Your task to perform on an android device: check out phone information Image 0: 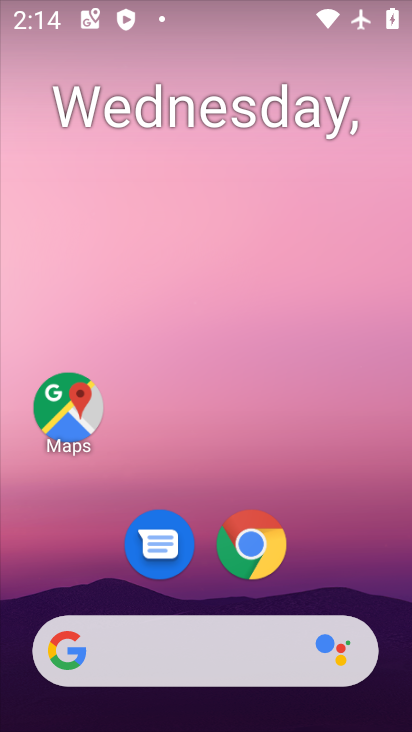
Step 0: drag from (337, 541) to (299, 4)
Your task to perform on an android device: check out phone information Image 1: 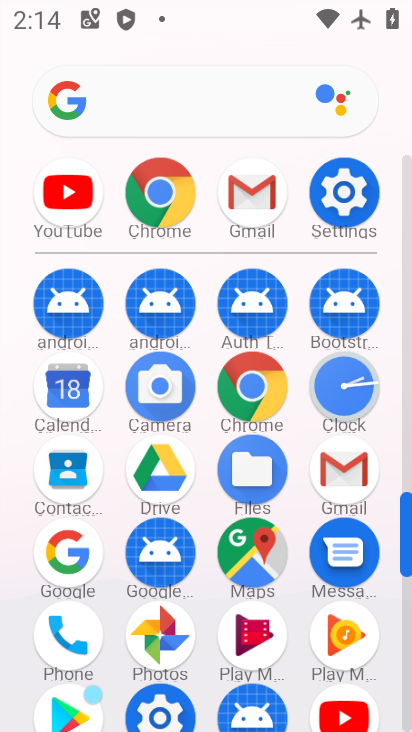
Step 1: click (332, 212)
Your task to perform on an android device: check out phone information Image 2: 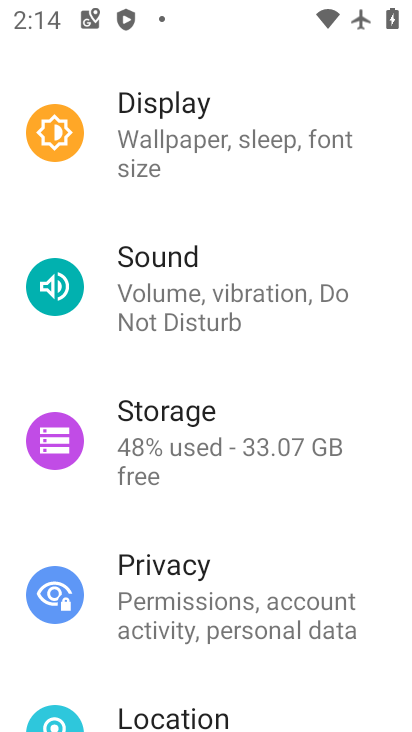
Step 2: drag from (220, 650) to (296, 8)
Your task to perform on an android device: check out phone information Image 3: 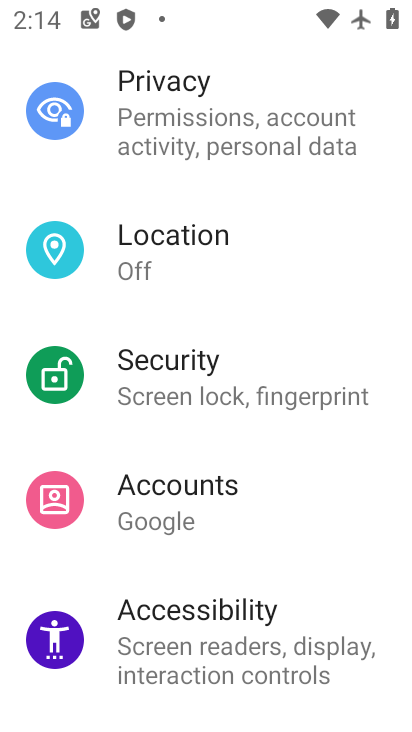
Step 3: drag from (199, 620) to (264, 0)
Your task to perform on an android device: check out phone information Image 4: 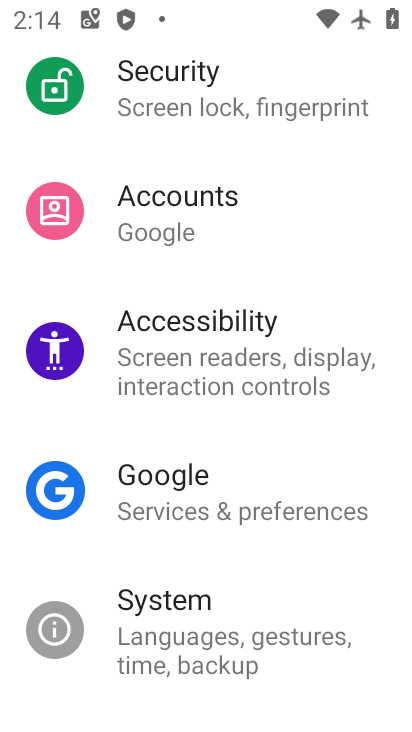
Step 4: drag from (175, 637) to (285, 262)
Your task to perform on an android device: check out phone information Image 5: 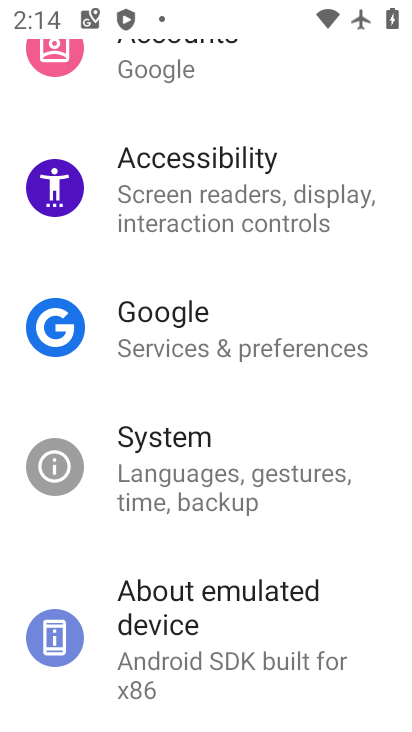
Step 5: click (217, 647)
Your task to perform on an android device: check out phone information Image 6: 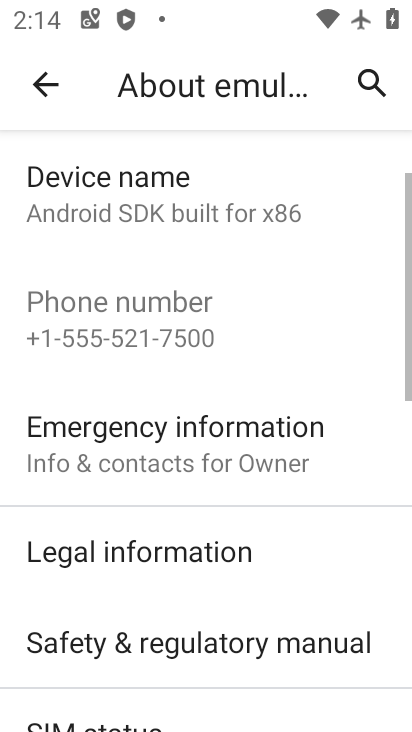
Step 6: task complete